Your task to perform on an android device: open a new tab in the chrome app Image 0: 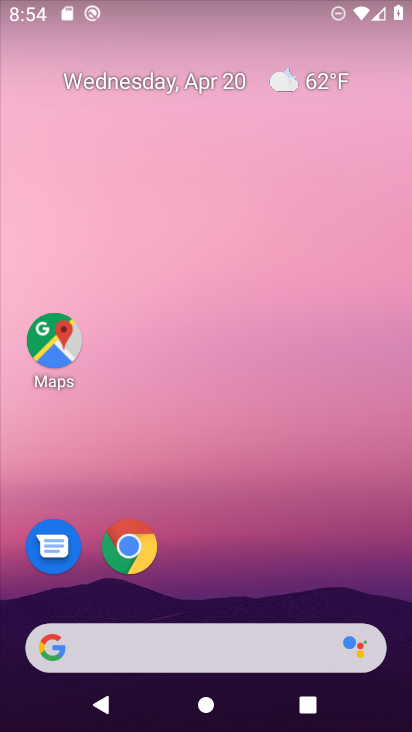
Step 0: click (125, 533)
Your task to perform on an android device: open a new tab in the chrome app Image 1: 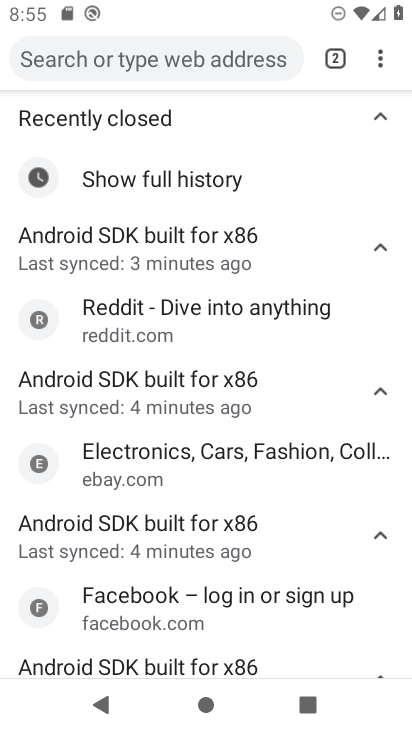
Step 1: task complete